Your task to perform on an android device: add a contact Image 0: 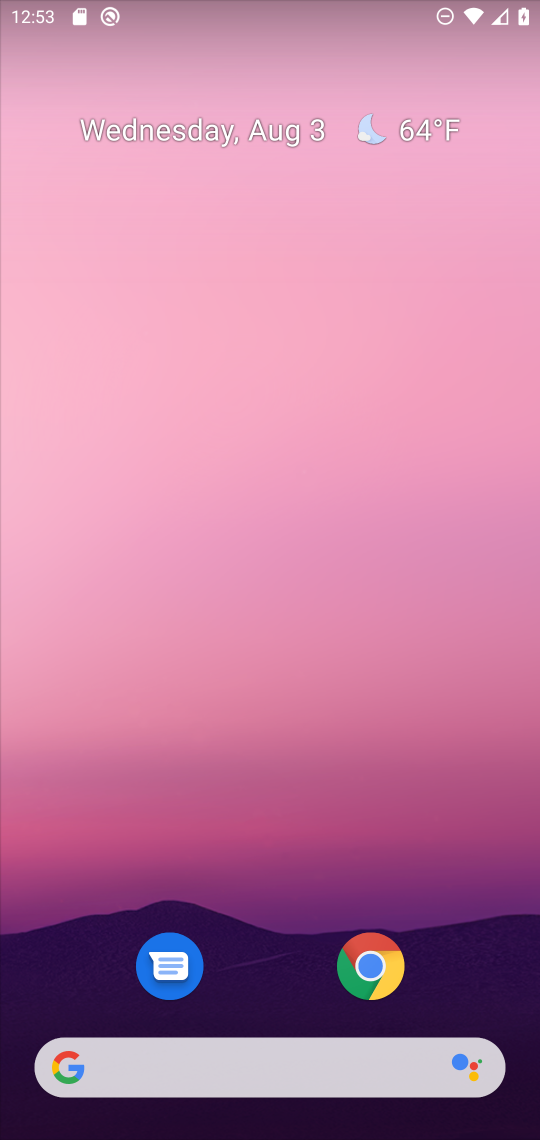
Step 0: drag from (269, 952) to (256, 347)
Your task to perform on an android device: add a contact Image 1: 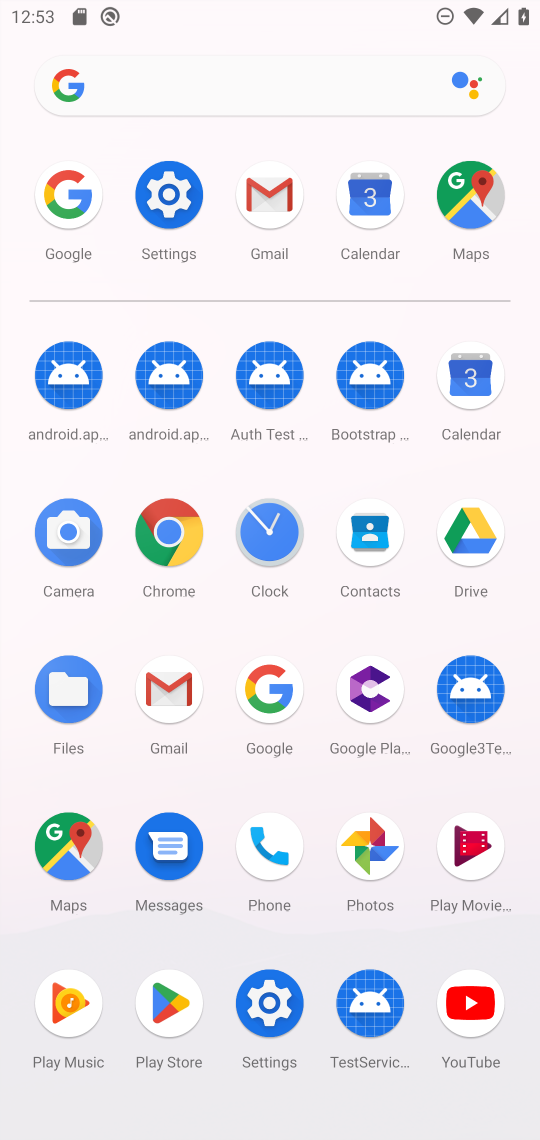
Step 1: click (350, 555)
Your task to perform on an android device: add a contact Image 2: 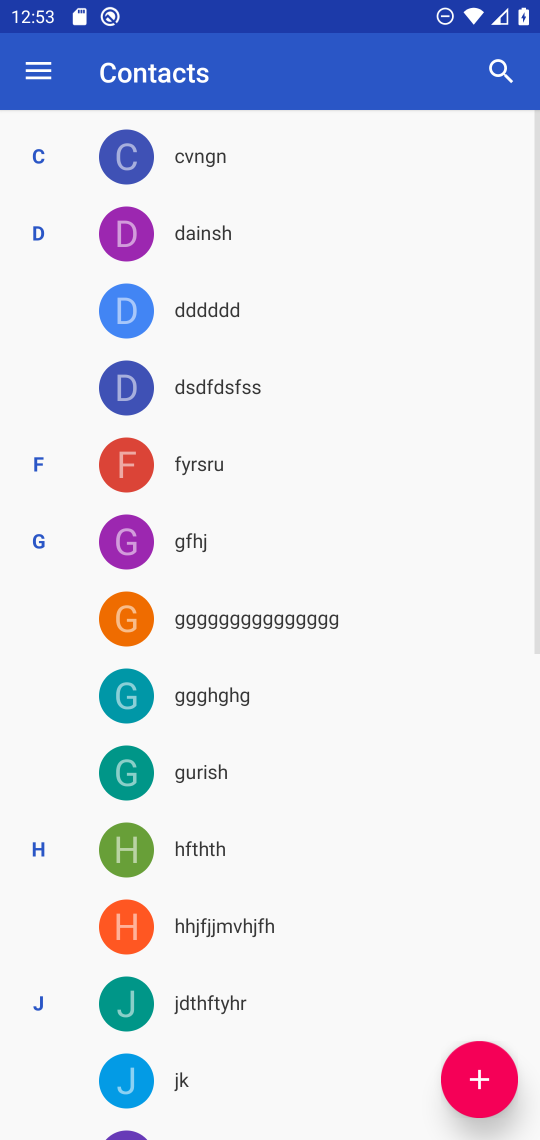
Step 2: click (511, 1055)
Your task to perform on an android device: add a contact Image 3: 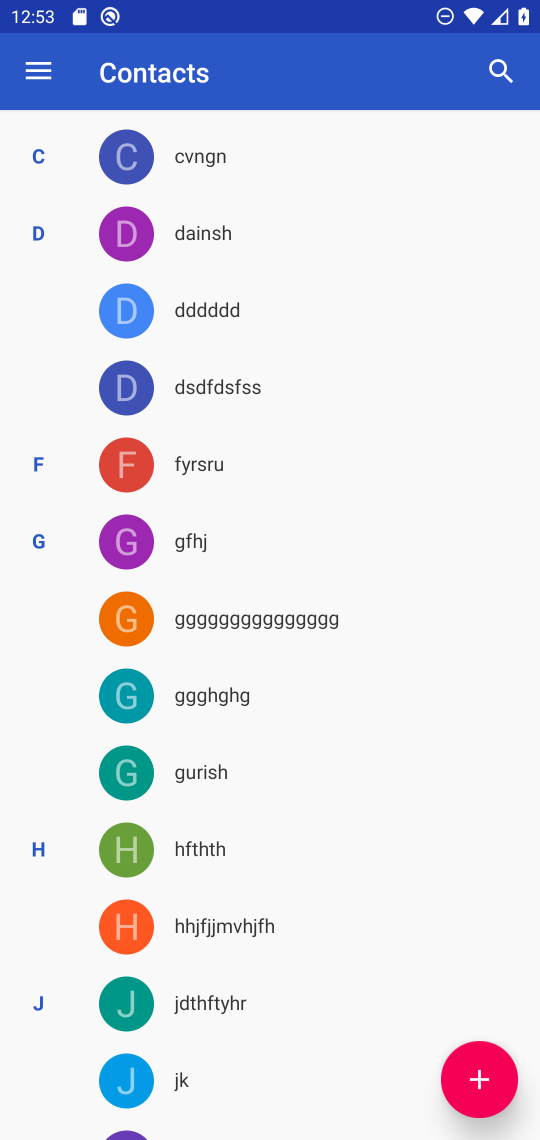
Step 3: click (494, 1062)
Your task to perform on an android device: add a contact Image 4: 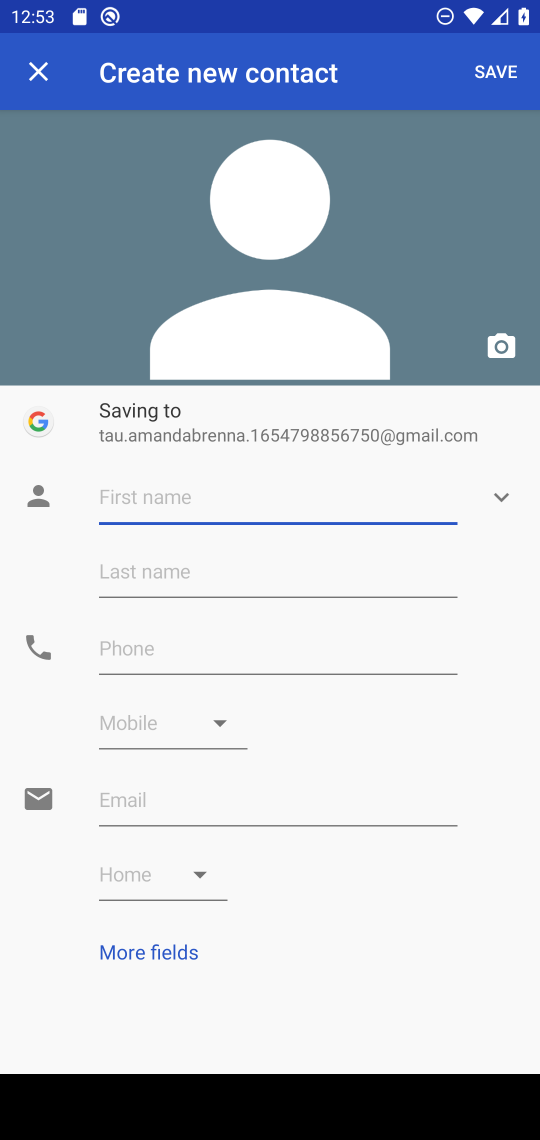
Step 4: click (302, 493)
Your task to perform on an android device: add a contact Image 5: 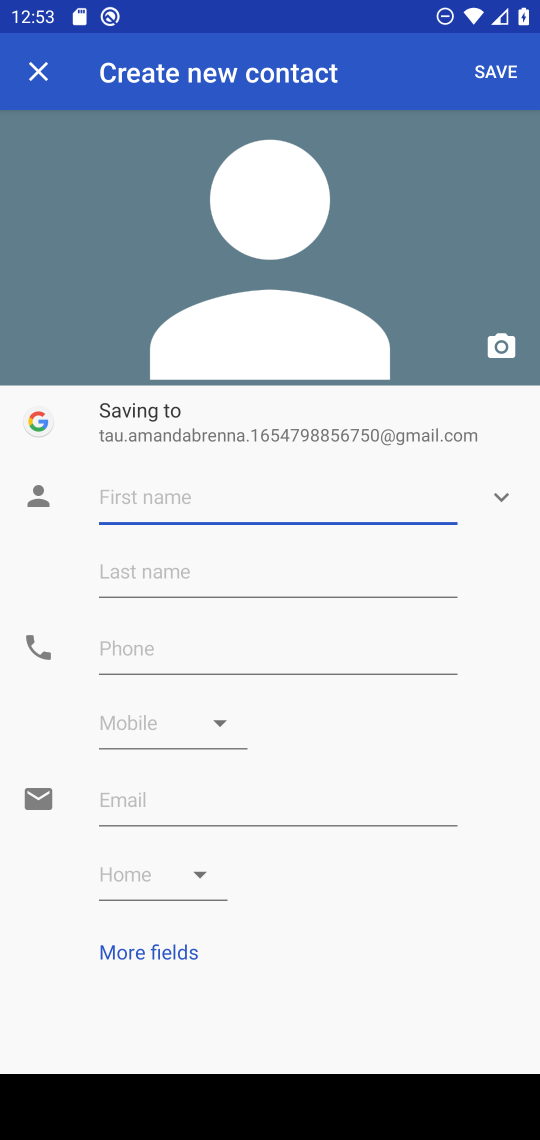
Step 5: type "gdrhhg"
Your task to perform on an android device: add a contact Image 6: 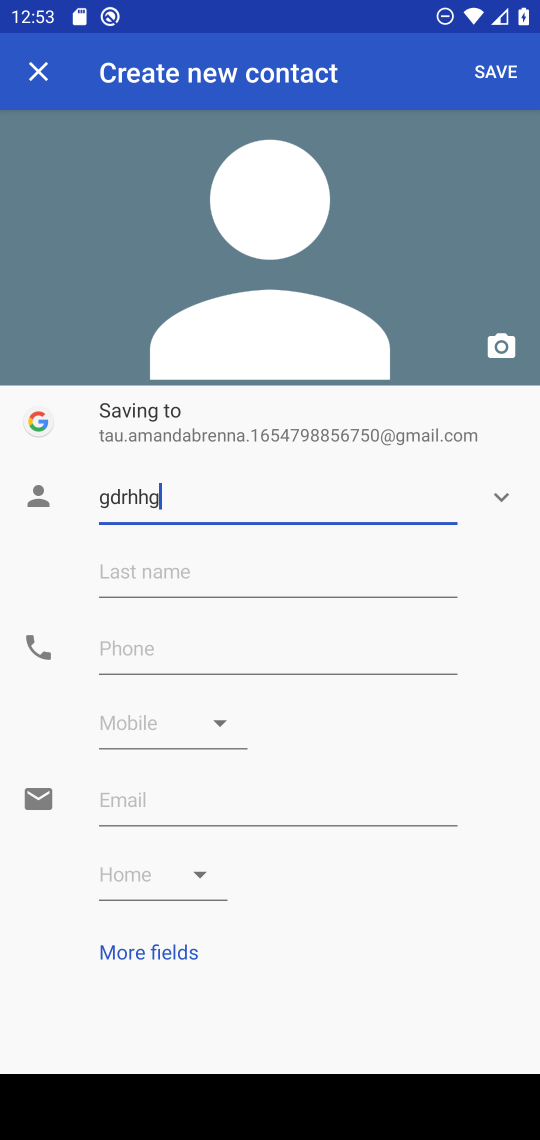
Step 6: click (265, 659)
Your task to perform on an android device: add a contact Image 7: 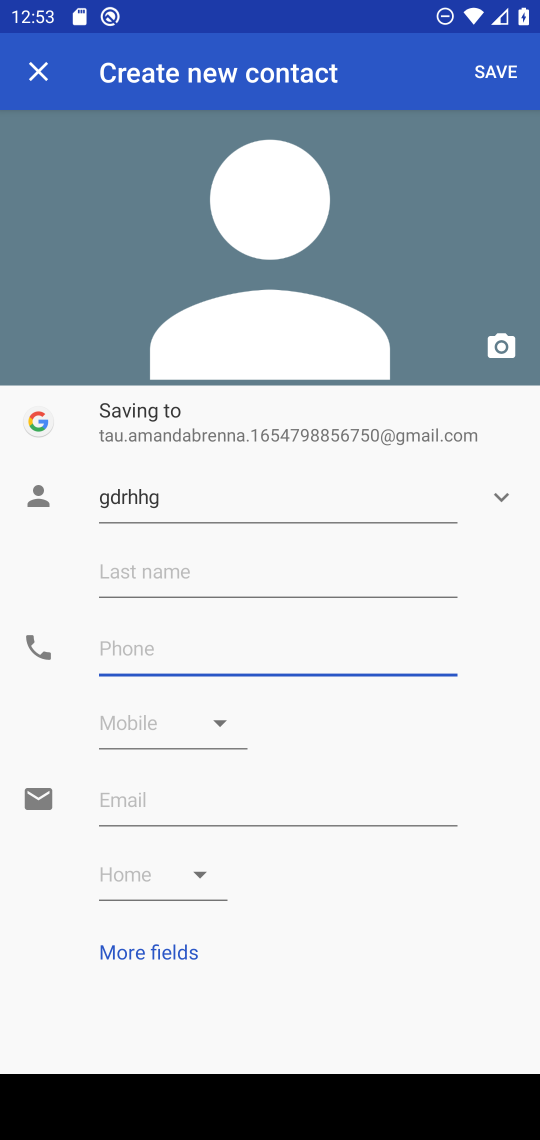
Step 7: type "9685756565"
Your task to perform on an android device: add a contact Image 8: 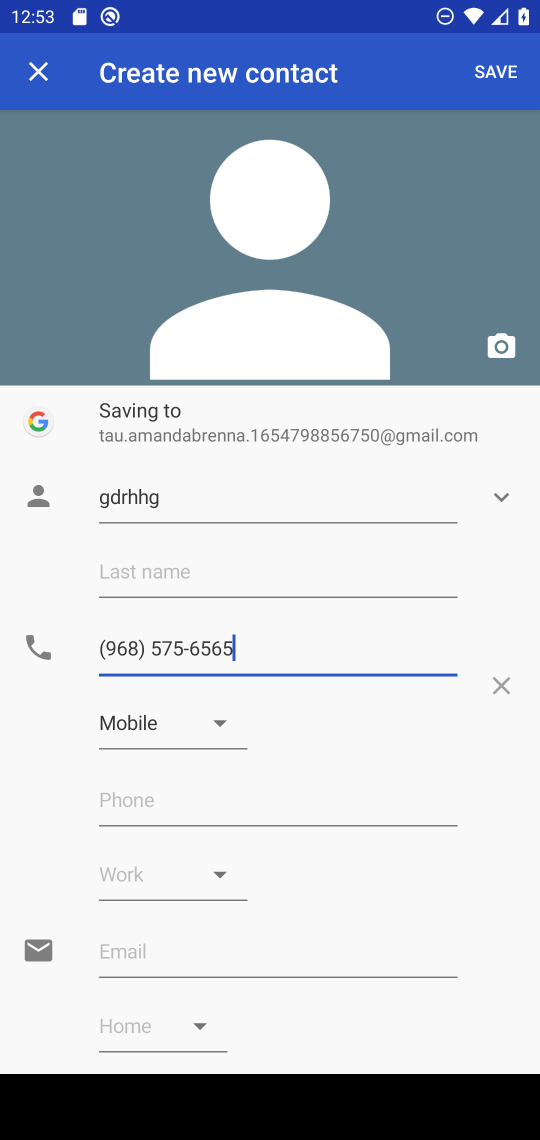
Step 8: click (524, 75)
Your task to perform on an android device: add a contact Image 9: 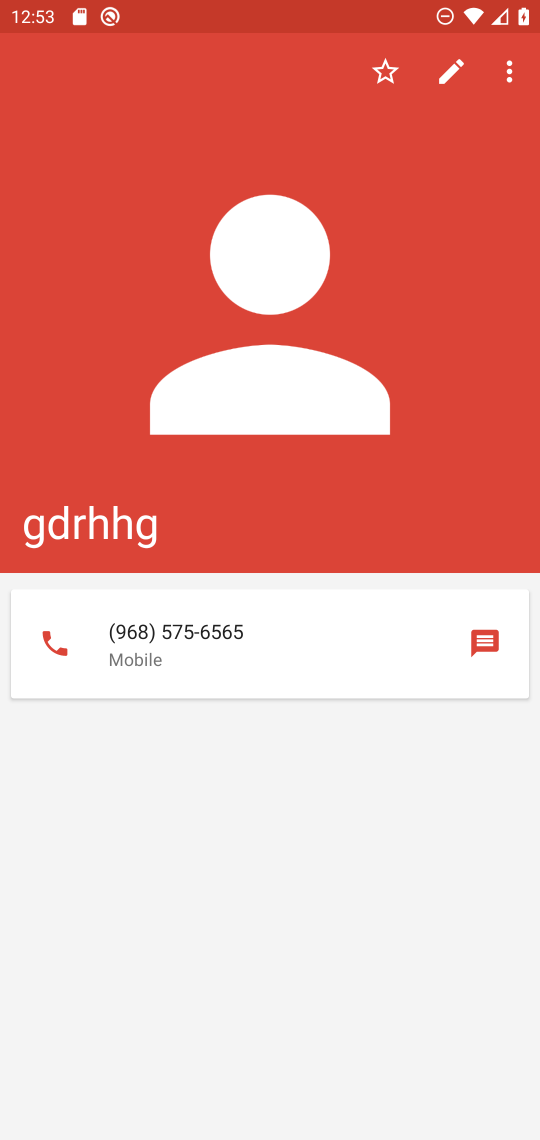
Step 9: task complete